Your task to perform on an android device: Open the web browser Image 0: 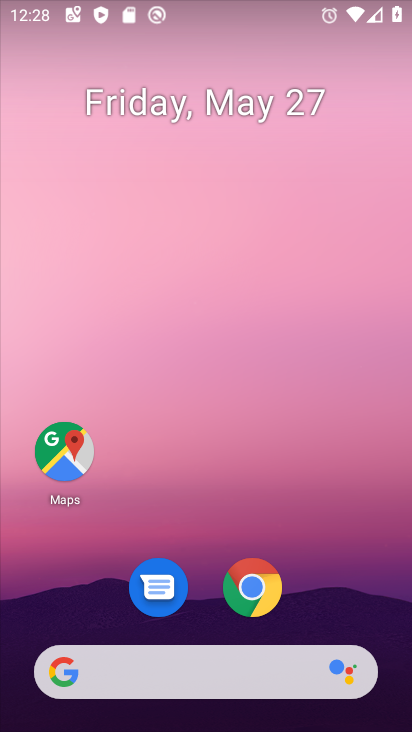
Step 0: press home button
Your task to perform on an android device: Open the web browser Image 1: 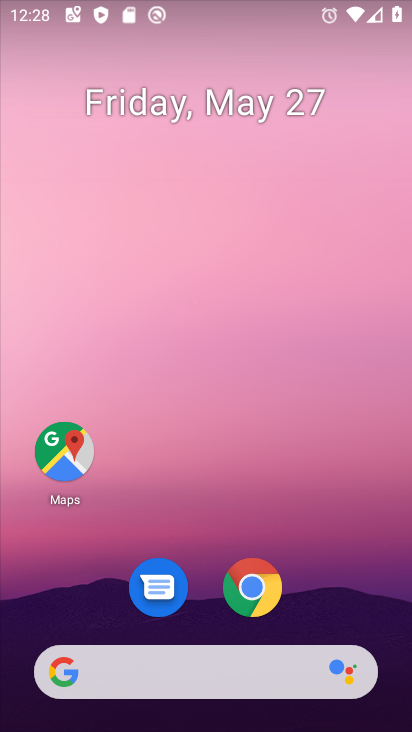
Step 1: drag from (239, 699) to (278, 221)
Your task to perform on an android device: Open the web browser Image 2: 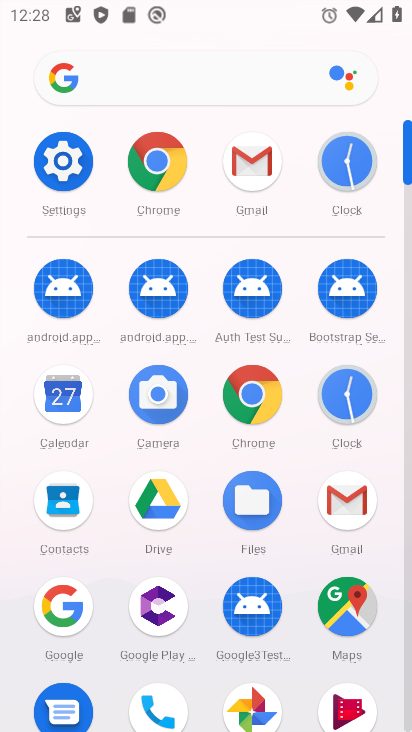
Step 2: click (153, 154)
Your task to perform on an android device: Open the web browser Image 3: 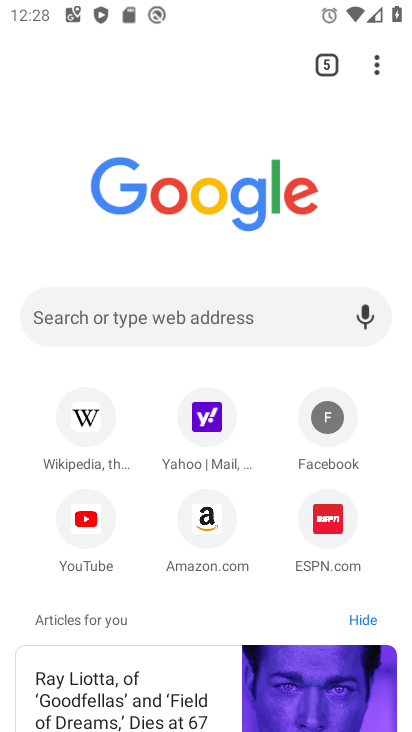
Step 3: click (148, 315)
Your task to perform on an android device: Open the web browser Image 4: 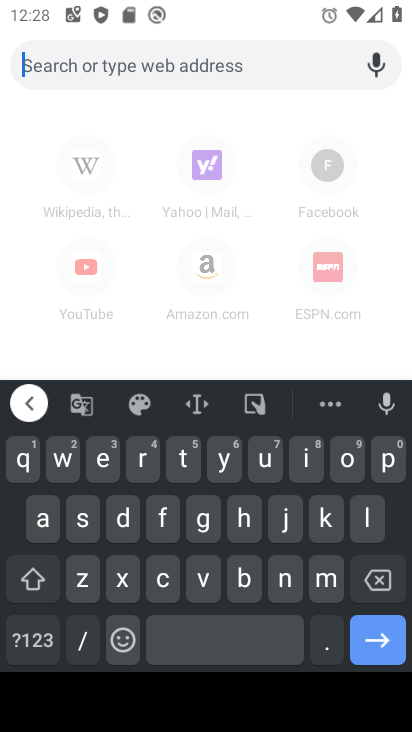
Step 4: task complete